Your task to perform on an android device: turn on priority inbox in the gmail app Image 0: 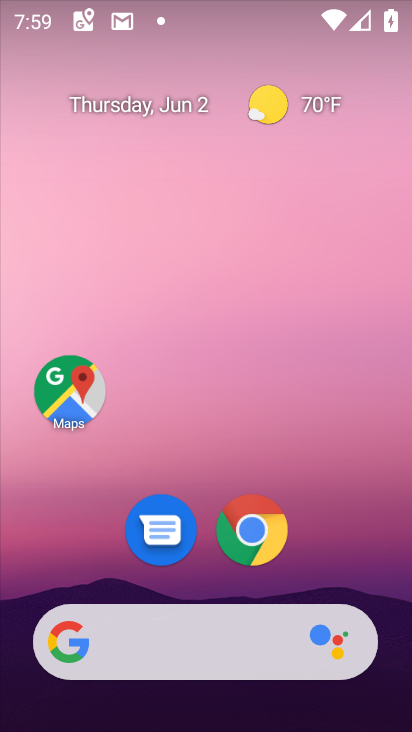
Step 0: drag from (200, 610) to (178, 328)
Your task to perform on an android device: turn on priority inbox in the gmail app Image 1: 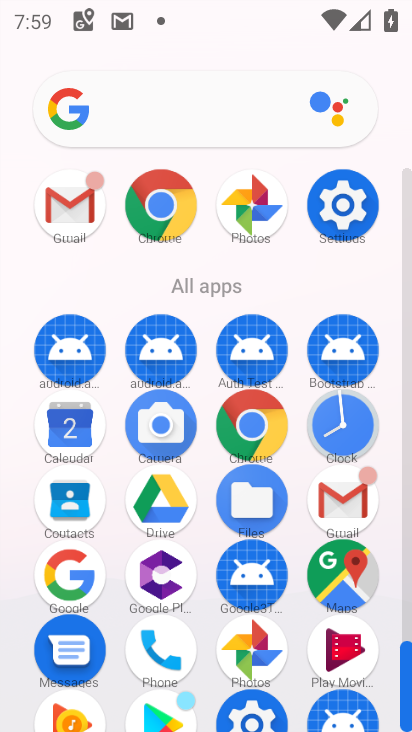
Step 1: click (58, 227)
Your task to perform on an android device: turn on priority inbox in the gmail app Image 2: 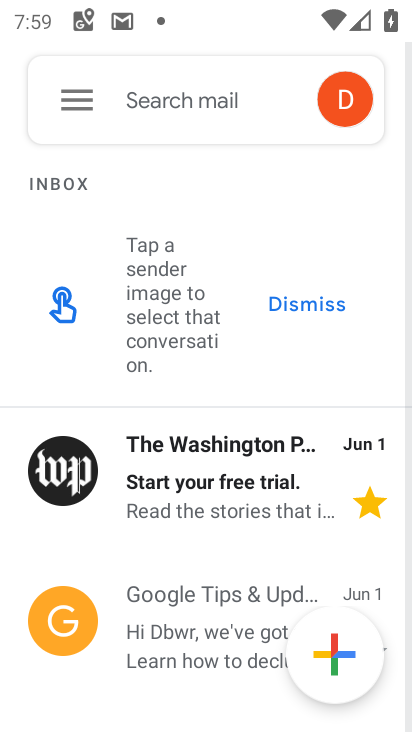
Step 2: click (80, 112)
Your task to perform on an android device: turn on priority inbox in the gmail app Image 3: 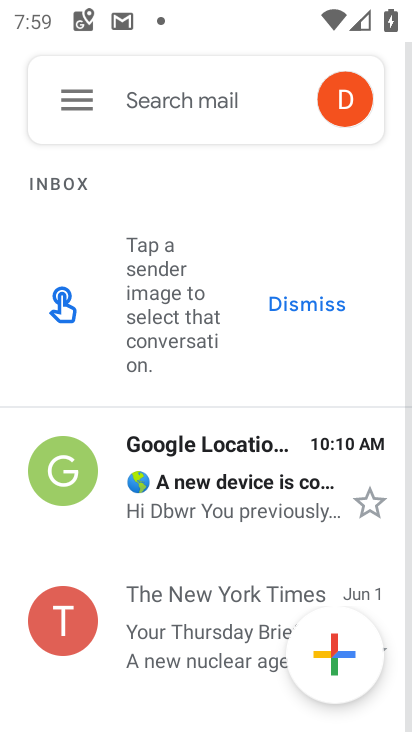
Step 3: click (72, 102)
Your task to perform on an android device: turn on priority inbox in the gmail app Image 4: 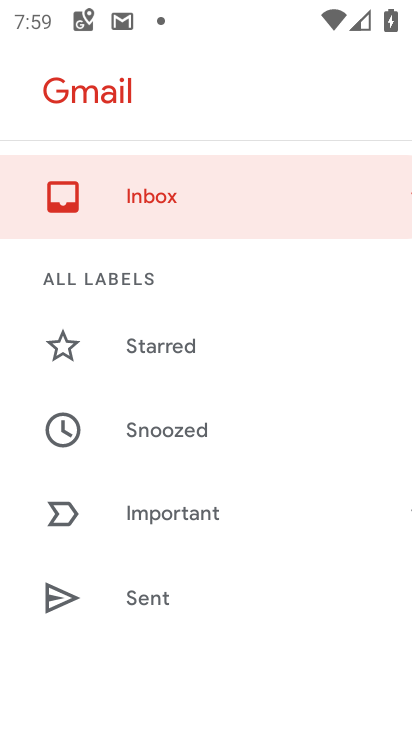
Step 4: drag from (160, 644) to (195, 179)
Your task to perform on an android device: turn on priority inbox in the gmail app Image 5: 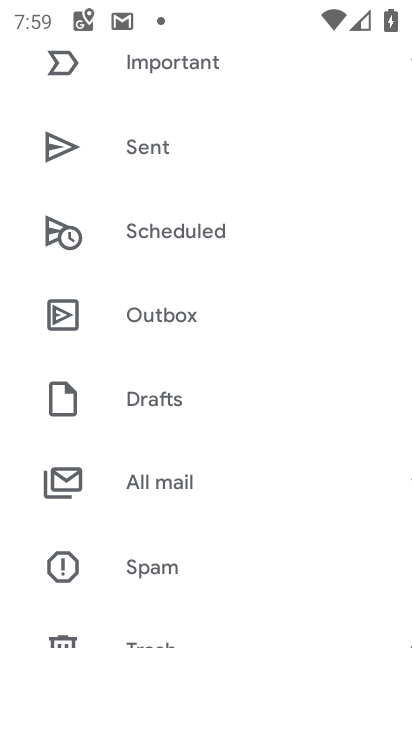
Step 5: drag from (168, 643) to (209, 276)
Your task to perform on an android device: turn on priority inbox in the gmail app Image 6: 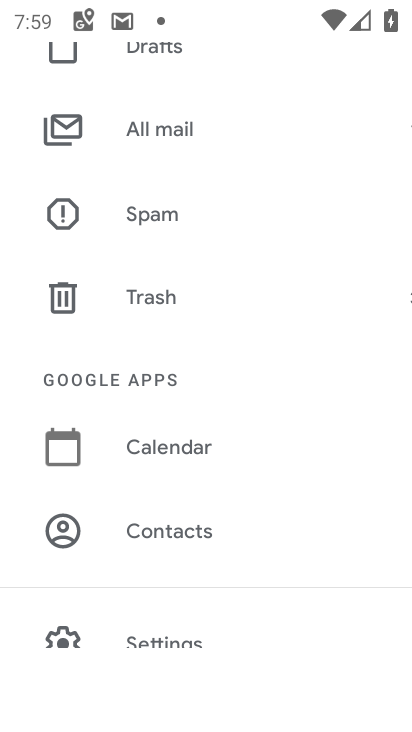
Step 6: click (173, 636)
Your task to perform on an android device: turn on priority inbox in the gmail app Image 7: 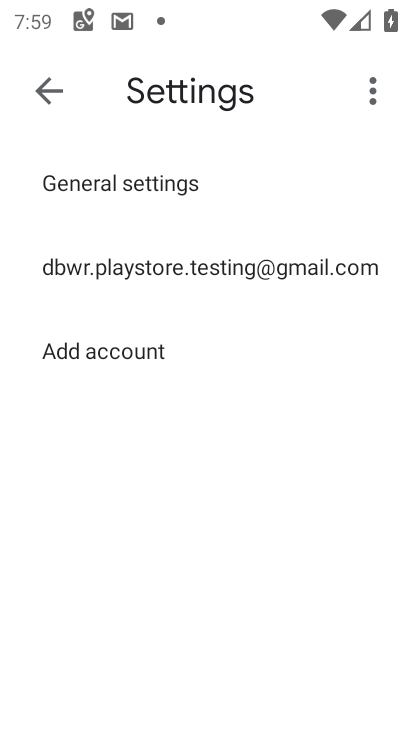
Step 7: click (134, 269)
Your task to perform on an android device: turn on priority inbox in the gmail app Image 8: 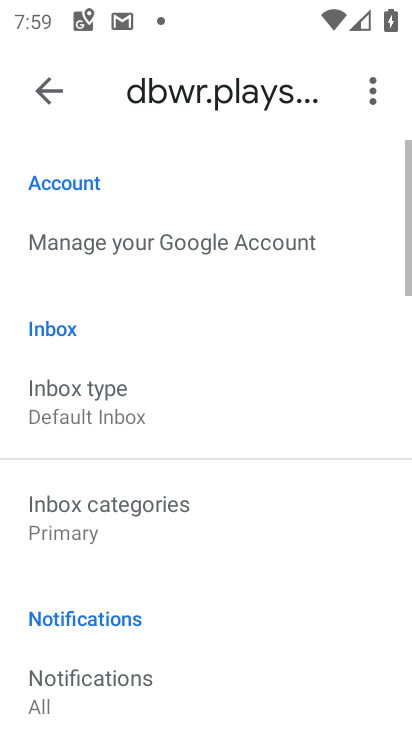
Step 8: click (96, 410)
Your task to perform on an android device: turn on priority inbox in the gmail app Image 9: 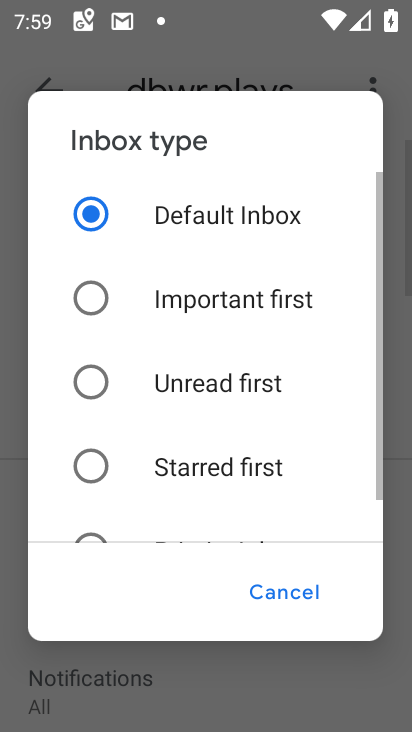
Step 9: drag from (146, 494) to (161, 174)
Your task to perform on an android device: turn on priority inbox in the gmail app Image 10: 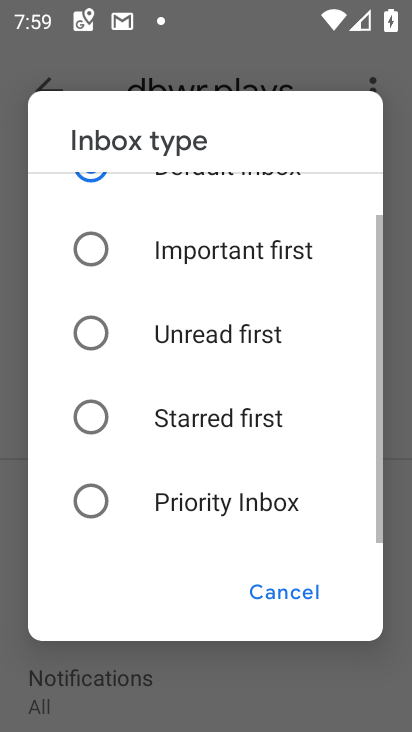
Step 10: click (170, 504)
Your task to perform on an android device: turn on priority inbox in the gmail app Image 11: 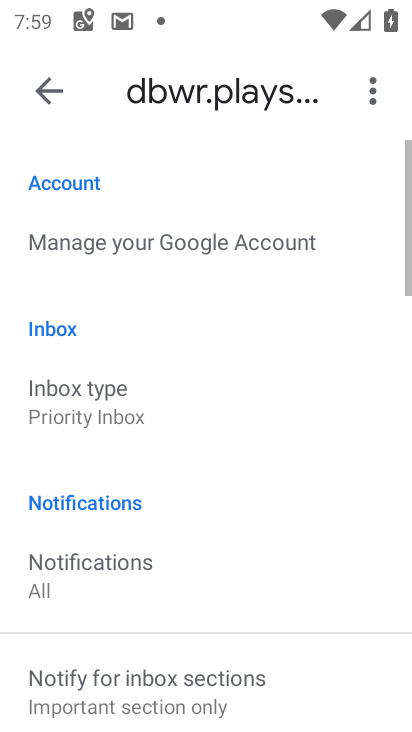
Step 11: task complete